Your task to perform on an android device: Open eBay Image 0: 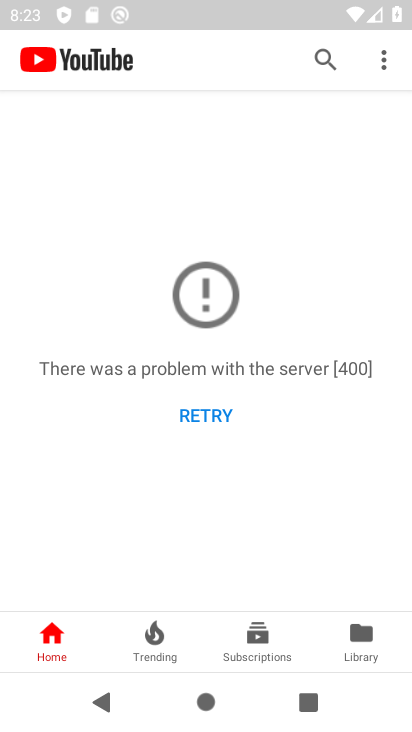
Step 0: press home button
Your task to perform on an android device: Open eBay Image 1: 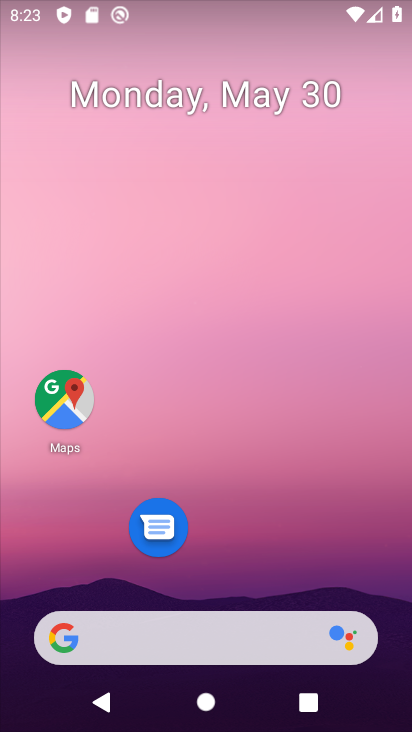
Step 1: drag from (206, 538) to (197, 157)
Your task to perform on an android device: Open eBay Image 2: 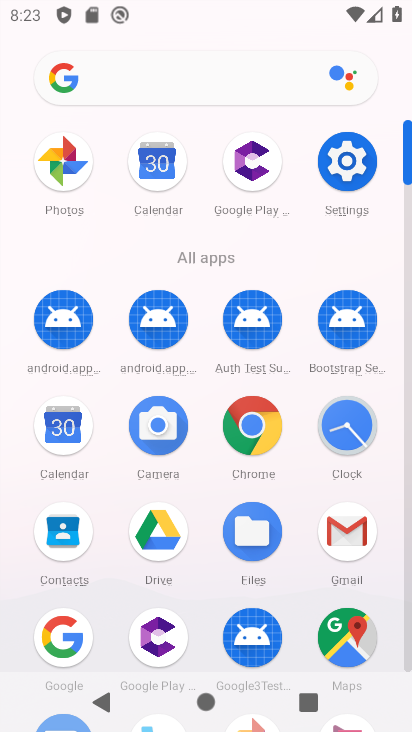
Step 2: click (246, 420)
Your task to perform on an android device: Open eBay Image 3: 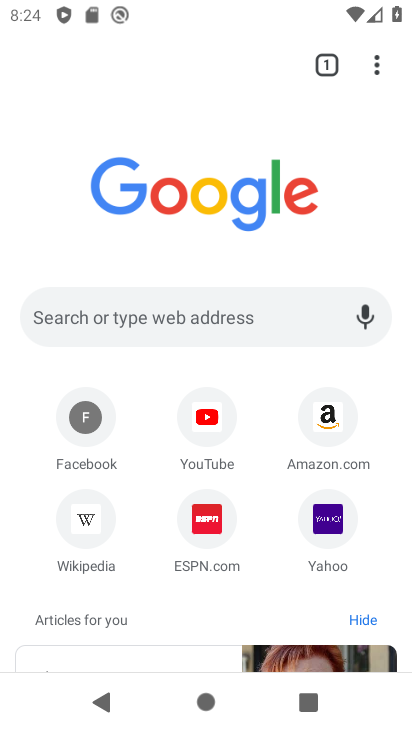
Step 3: click (174, 305)
Your task to perform on an android device: Open eBay Image 4: 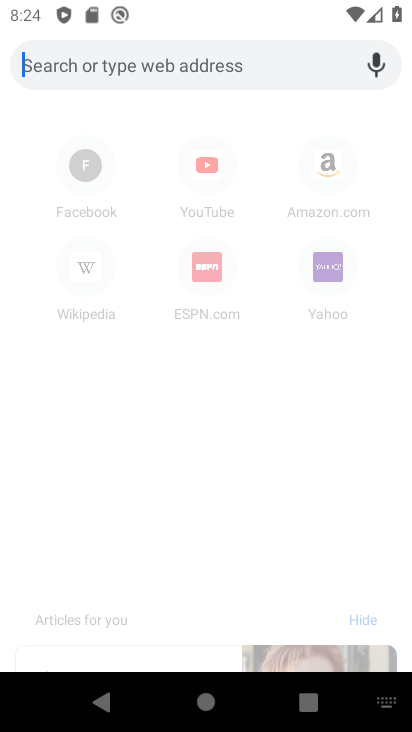
Step 4: type "www.ebay.com"
Your task to perform on an android device: Open eBay Image 5: 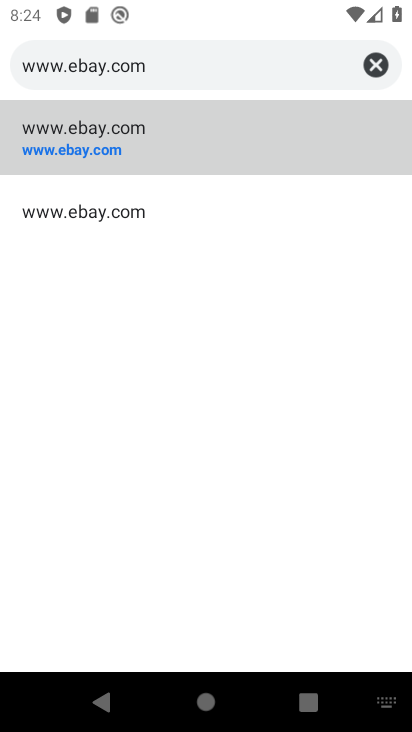
Step 5: click (85, 154)
Your task to perform on an android device: Open eBay Image 6: 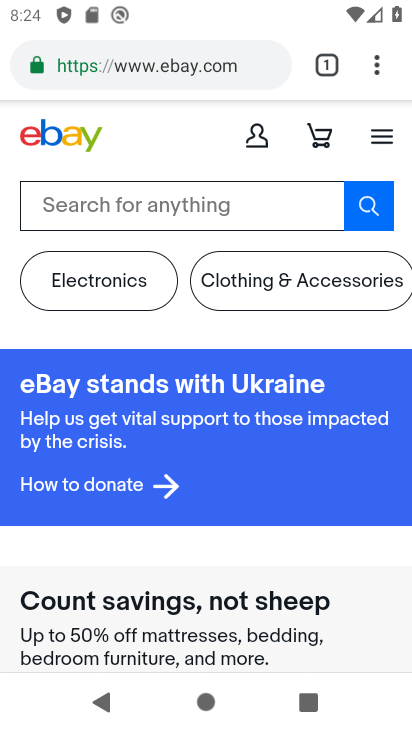
Step 6: task complete